Your task to perform on an android device: turn pop-ups on in chrome Image 0: 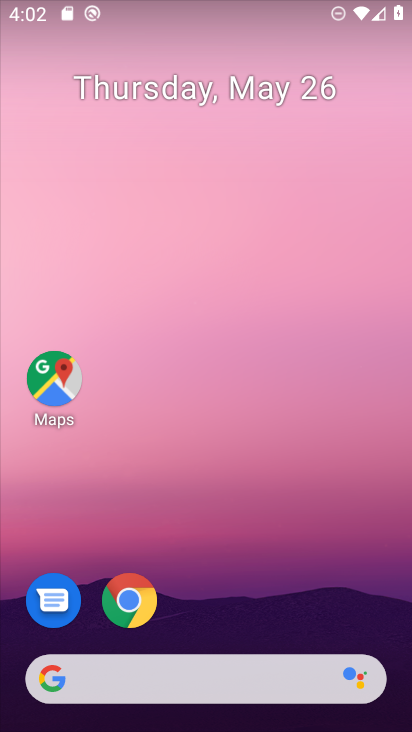
Step 0: drag from (227, 580) to (151, 54)
Your task to perform on an android device: turn pop-ups on in chrome Image 1: 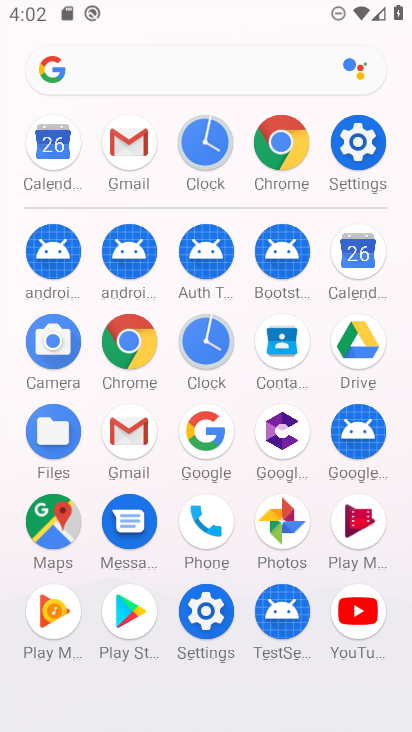
Step 1: drag from (9, 578) to (13, 308)
Your task to perform on an android device: turn pop-ups on in chrome Image 2: 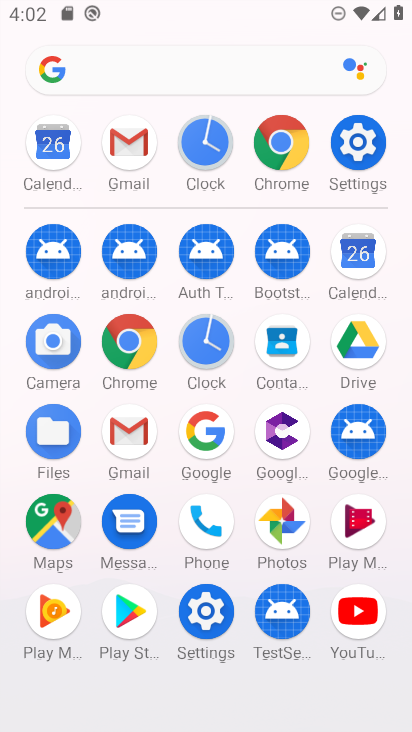
Step 2: click (126, 335)
Your task to perform on an android device: turn pop-ups on in chrome Image 3: 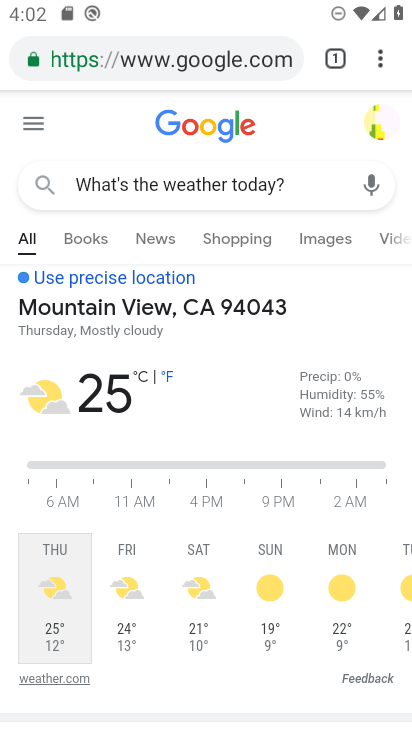
Step 3: drag from (383, 63) to (207, 615)
Your task to perform on an android device: turn pop-ups on in chrome Image 4: 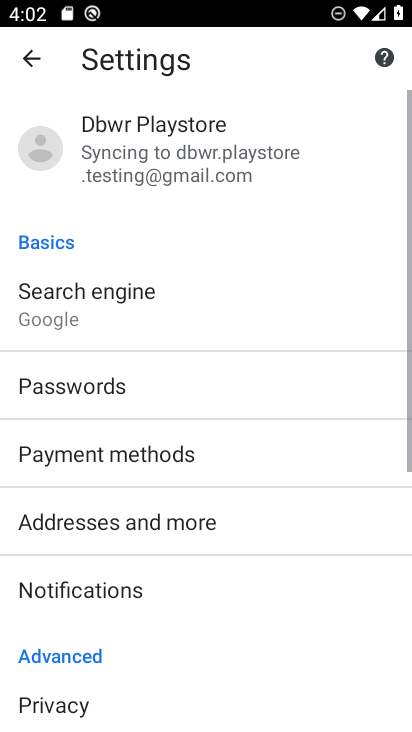
Step 4: drag from (206, 612) to (282, 221)
Your task to perform on an android device: turn pop-ups on in chrome Image 5: 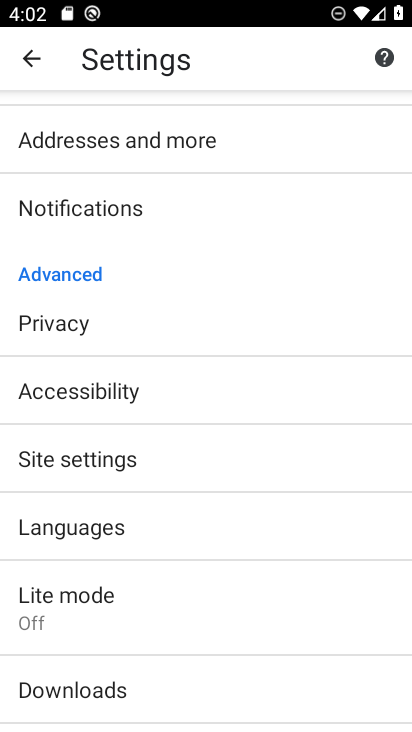
Step 5: drag from (212, 635) to (239, 211)
Your task to perform on an android device: turn pop-ups on in chrome Image 6: 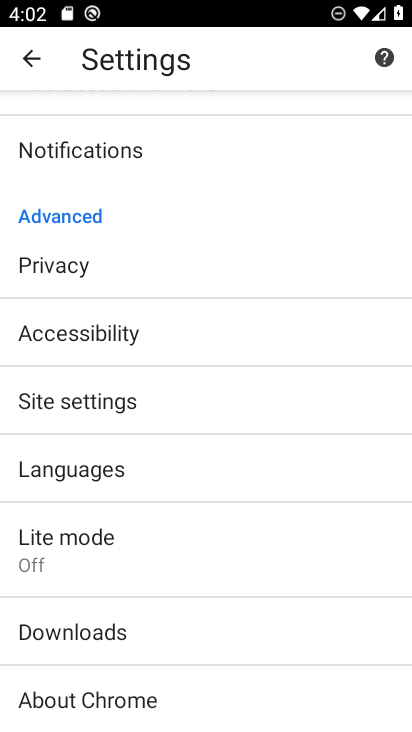
Step 6: click (121, 389)
Your task to perform on an android device: turn pop-ups on in chrome Image 7: 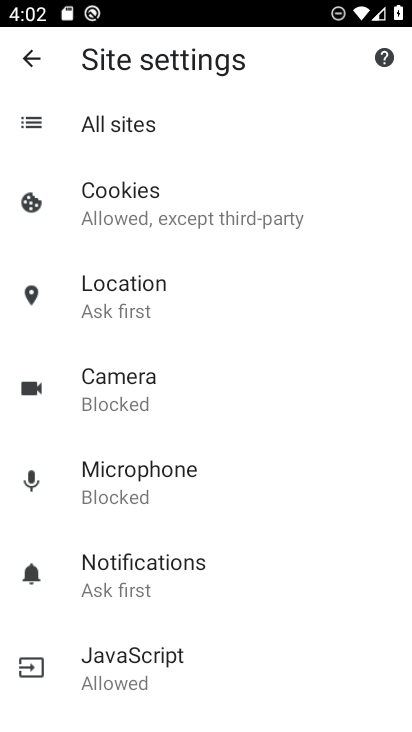
Step 7: drag from (282, 608) to (276, 280)
Your task to perform on an android device: turn pop-ups on in chrome Image 8: 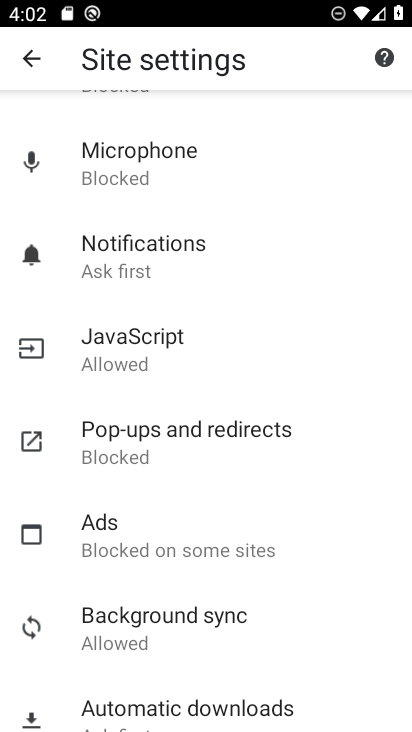
Step 8: click (191, 427)
Your task to perform on an android device: turn pop-ups on in chrome Image 9: 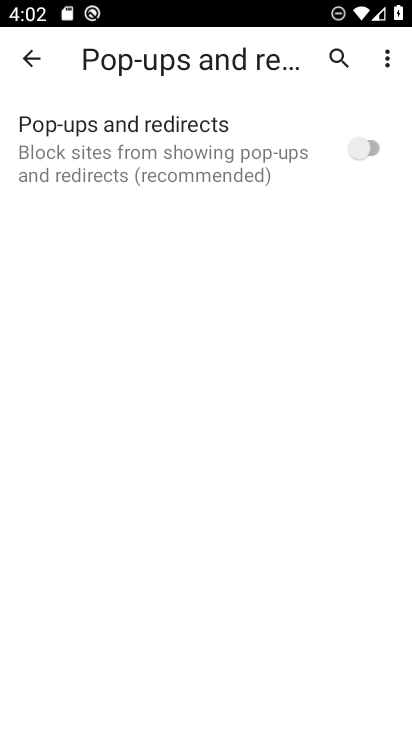
Step 9: click (359, 152)
Your task to perform on an android device: turn pop-ups on in chrome Image 10: 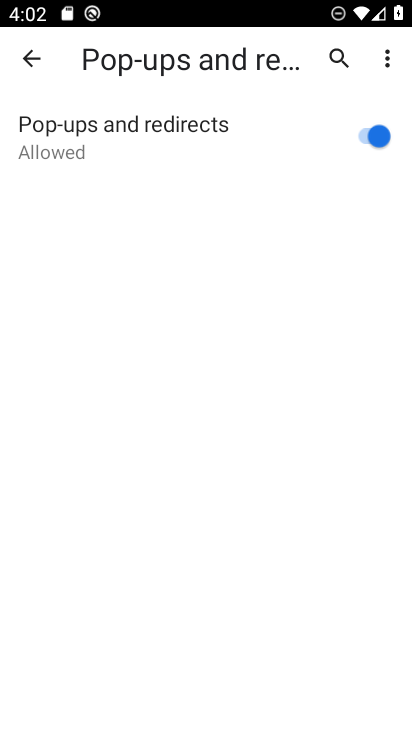
Step 10: task complete